Your task to perform on an android device: set the stopwatch Image 0: 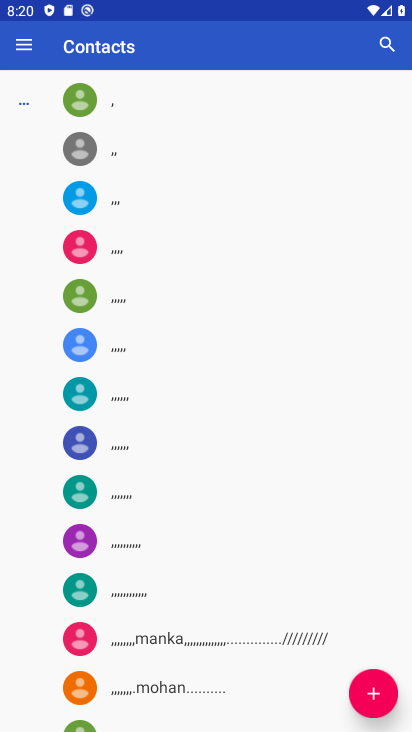
Step 0: press home button
Your task to perform on an android device: set the stopwatch Image 1: 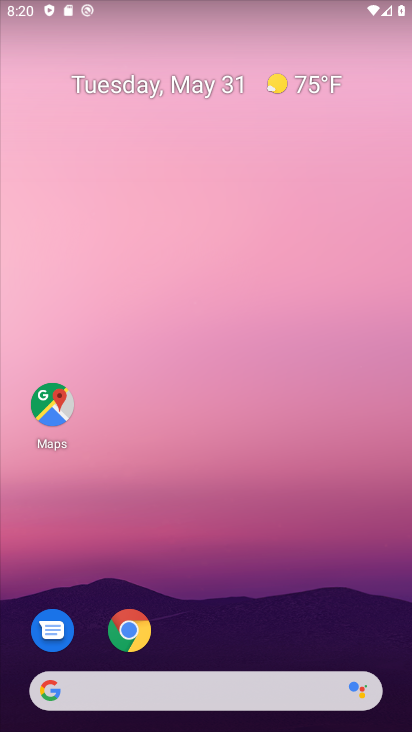
Step 1: drag from (249, 693) to (219, 182)
Your task to perform on an android device: set the stopwatch Image 2: 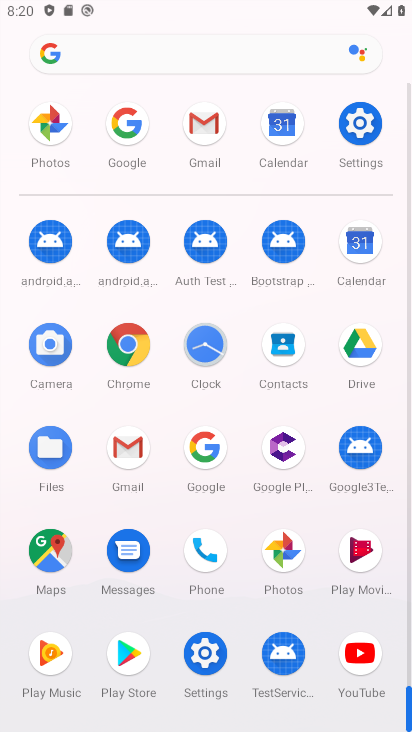
Step 2: click (211, 352)
Your task to perform on an android device: set the stopwatch Image 3: 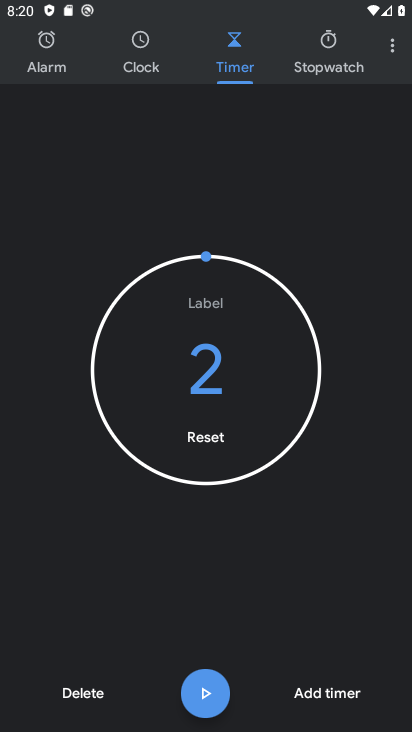
Step 3: click (313, 67)
Your task to perform on an android device: set the stopwatch Image 4: 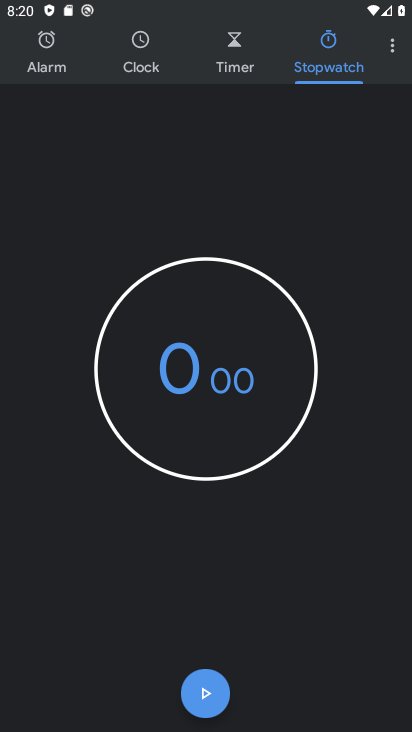
Step 4: click (212, 694)
Your task to perform on an android device: set the stopwatch Image 5: 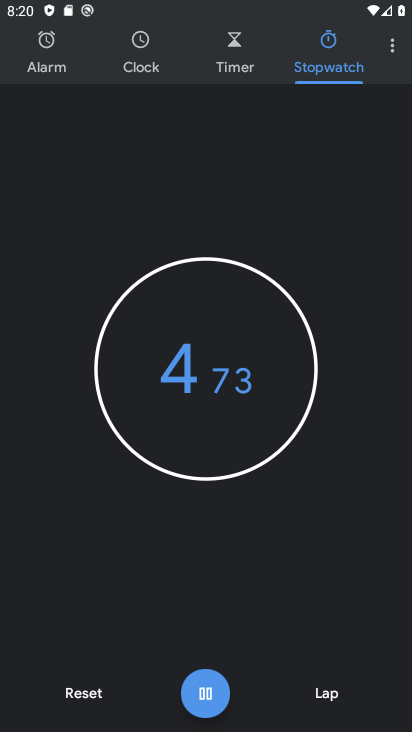
Step 5: task complete